Your task to perform on an android device: Open calendar and show me the third week of next month Image 0: 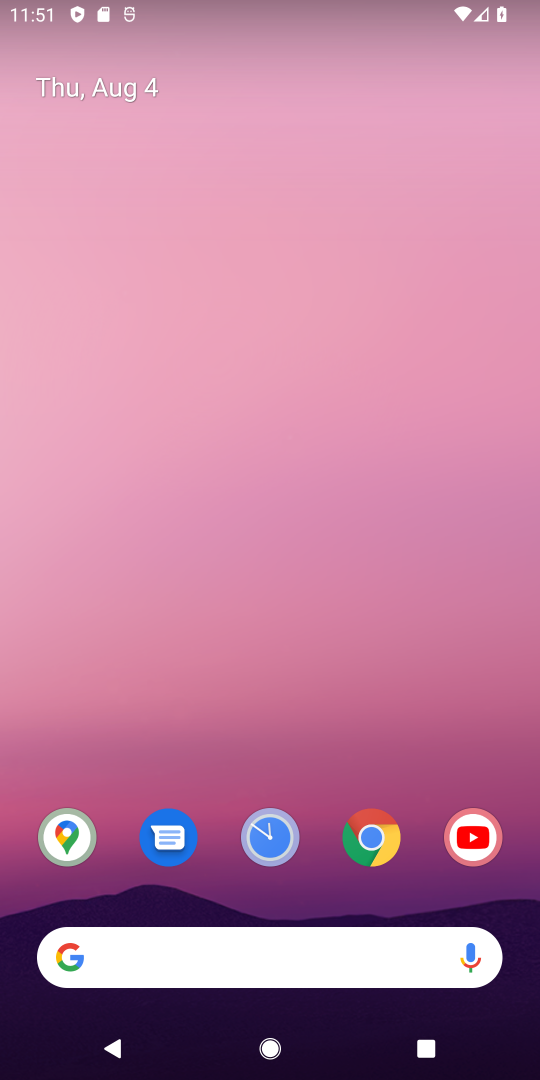
Step 0: drag from (297, 753) to (246, 102)
Your task to perform on an android device: Open calendar and show me the third week of next month Image 1: 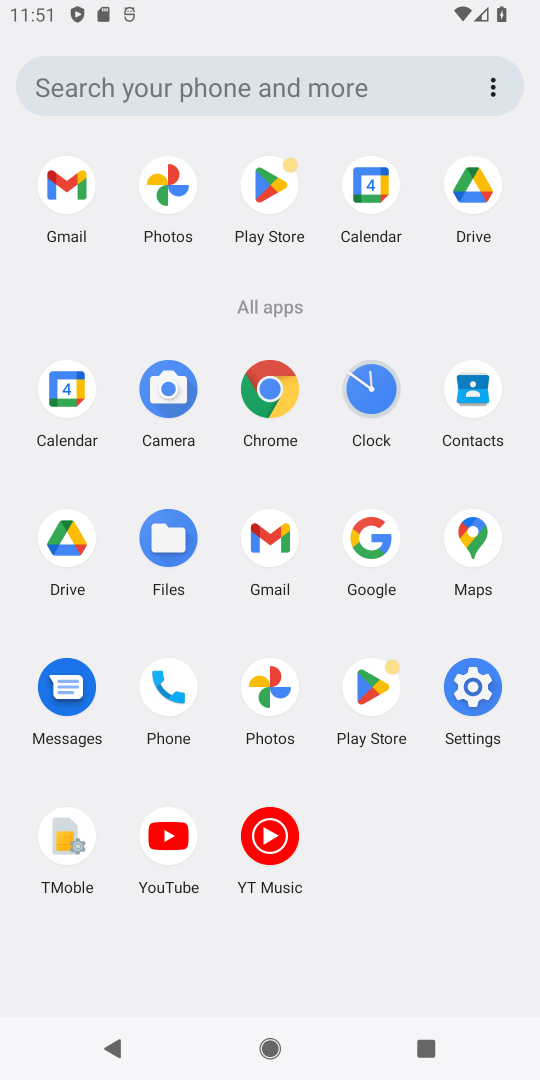
Step 1: click (51, 398)
Your task to perform on an android device: Open calendar and show me the third week of next month Image 2: 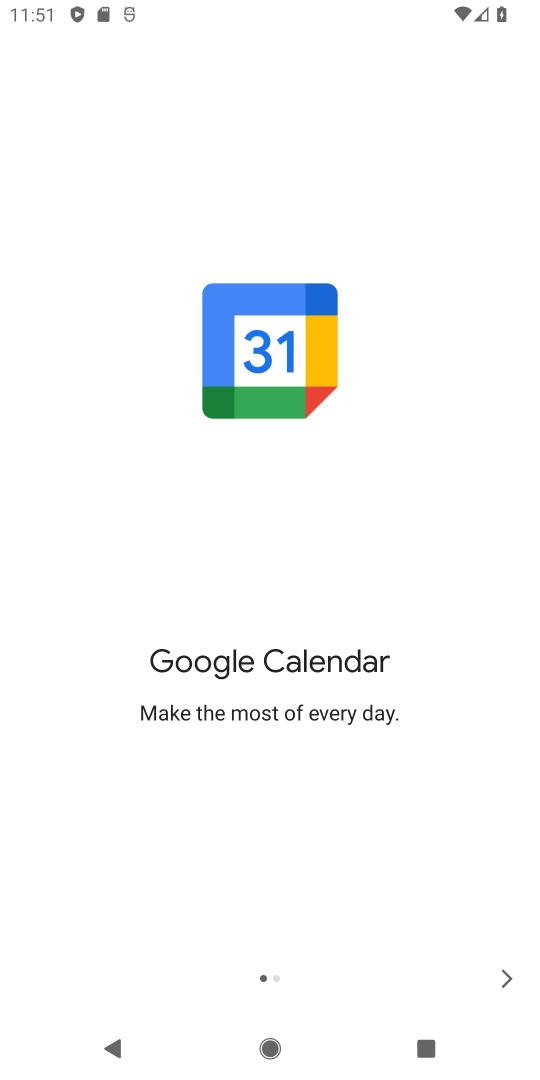
Step 2: click (502, 981)
Your task to perform on an android device: Open calendar and show me the third week of next month Image 3: 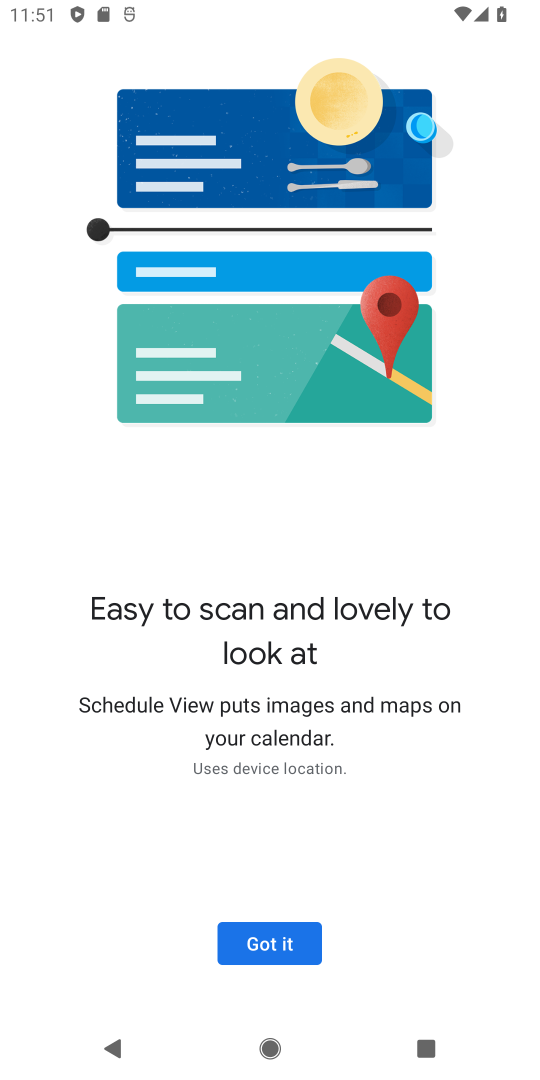
Step 3: click (252, 945)
Your task to perform on an android device: Open calendar and show me the third week of next month Image 4: 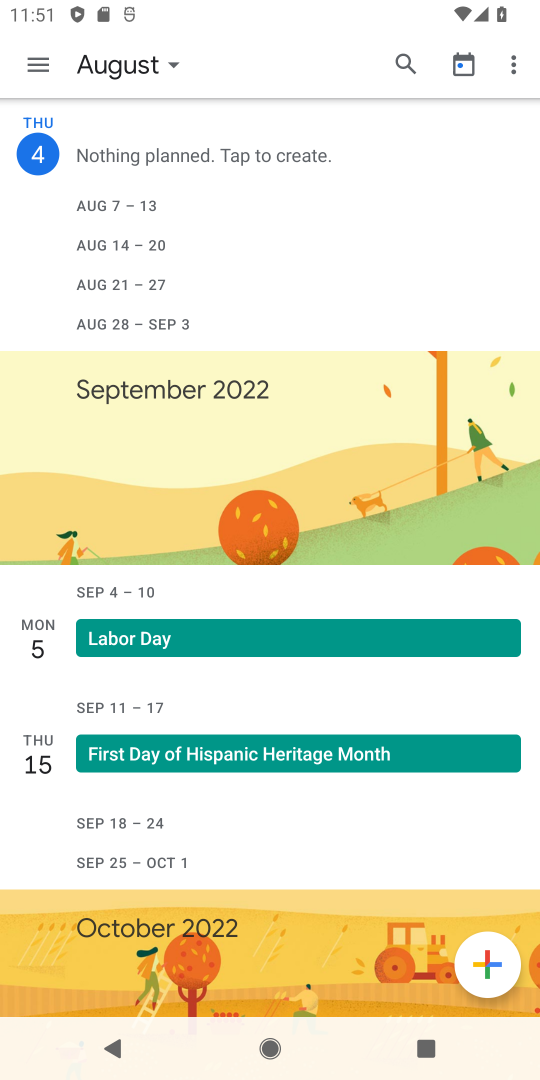
Step 4: click (121, 70)
Your task to perform on an android device: Open calendar and show me the third week of next month Image 5: 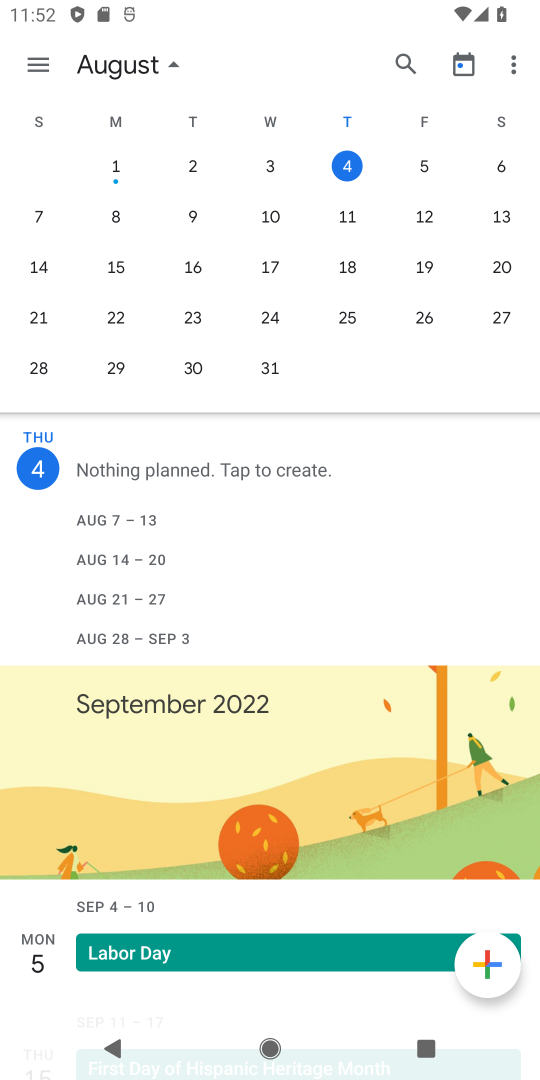
Step 5: drag from (504, 263) to (32, 127)
Your task to perform on an android device: Open calendar and show me the third week of next month Image 6: 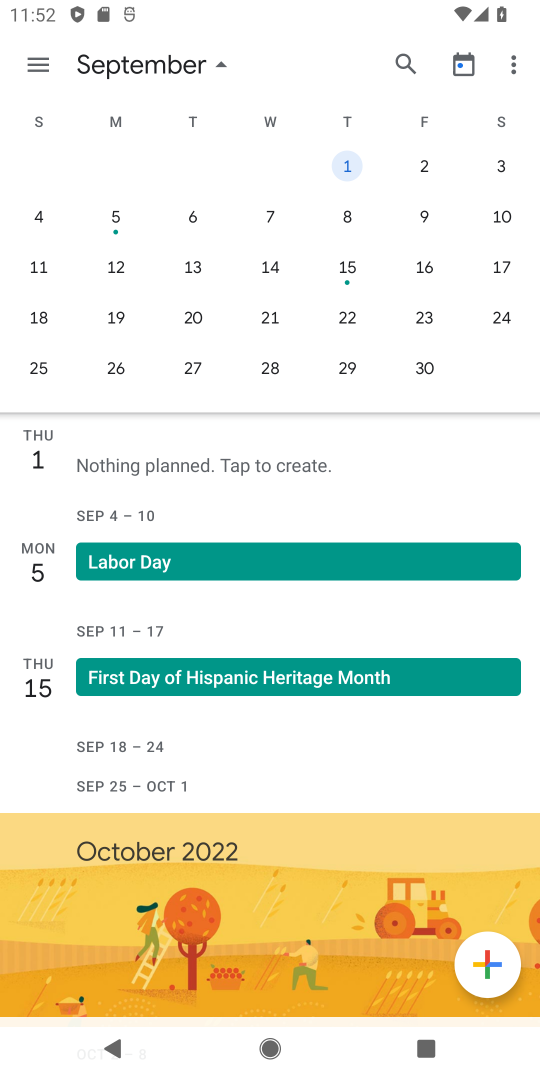
Step 6: click (37, 264)
Your task to perform on an android device: Open calendar and show me the third week of next month Image 7: 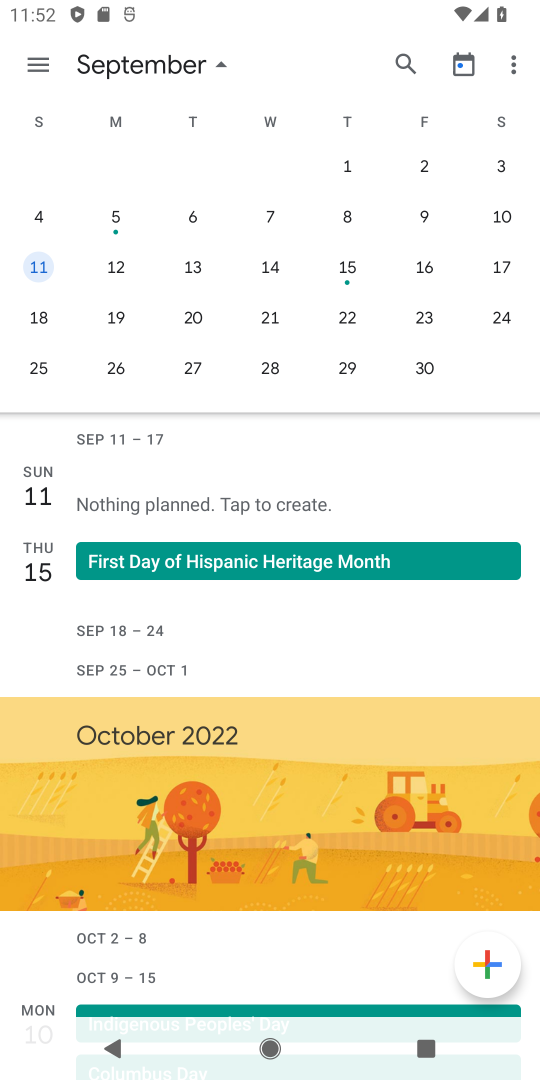
Step 7: task complete